Your task to perform on an android device: Show me popular videos on Youtube Image 0: 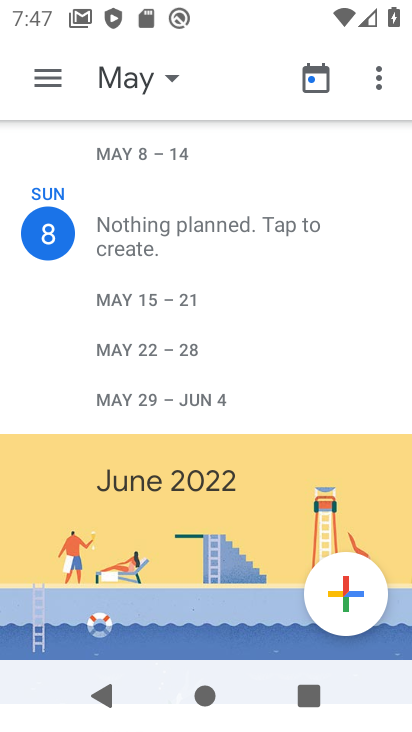
Step 0: press home button
Your task to perform on an android device: Show me popular videos on Youtube Image 1: 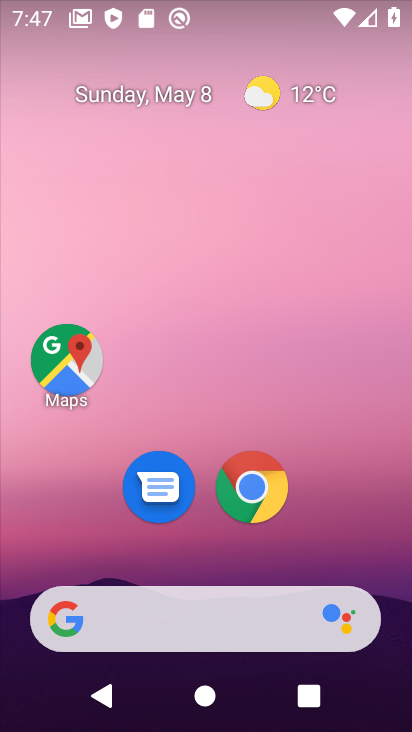
Step 1: drag from (318, 520) to (369, 115)
Your task to perform on an android device: Show me popular videos on Youtube Image 2: 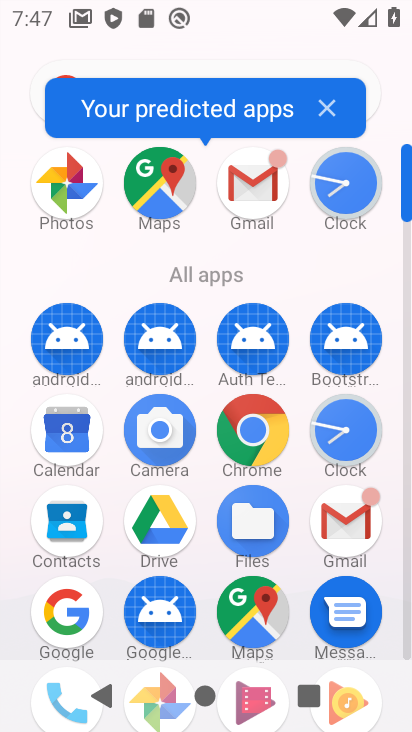
Step 2: drag from (254, 289) to (292, 42)
Your task to perform on an android device: Show me popular videos on Youtube Image 3: 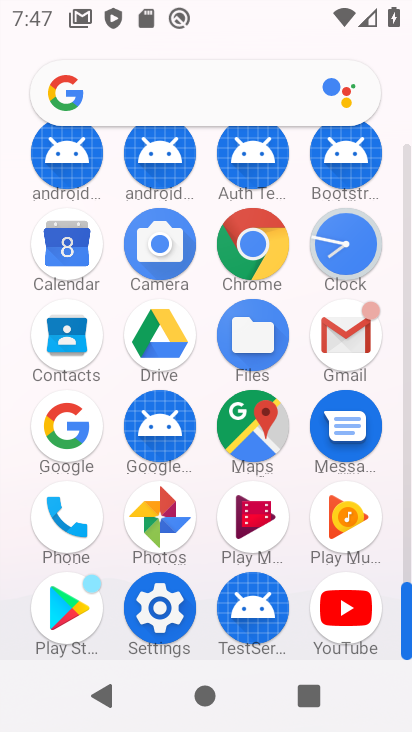
Step 3: click (351, 607)
Your task to perform on an android device: Show me popular videos on Youtube Image 4: 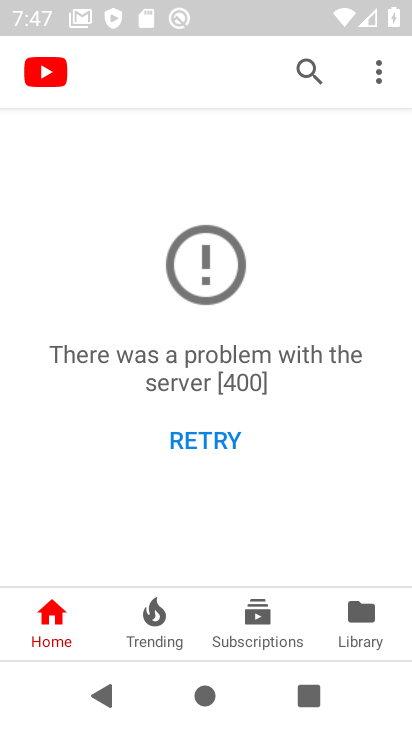
Step 4: click (298, 72)
Your task to perform on an android device: Show me popular videos on Youtube Image 5: 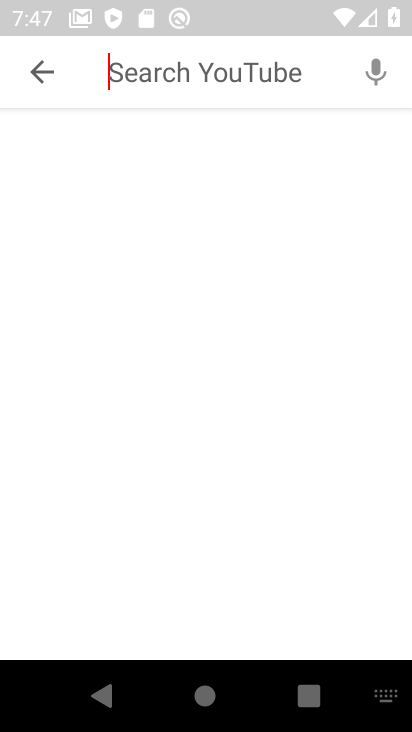
Step 5: click (272, 67)
Your task to perform on an android device: Show me popular videos on Youtube Image 6: 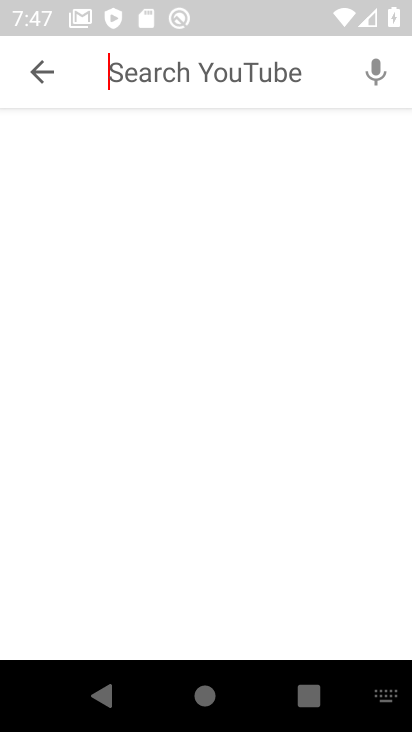
Step 6: type "popular videos"
Your task to perform on an android device: Show me popular videos on Youtube Image 7: 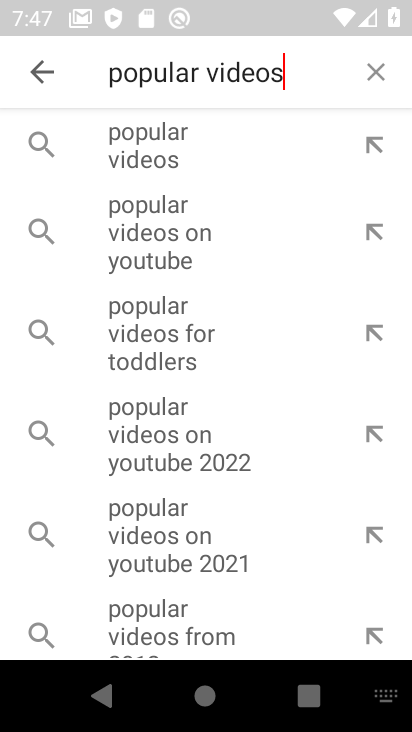
Step 7: click (158, 141)
Your task to perform on an android device: Show me popular videos on Youtube Image 8: 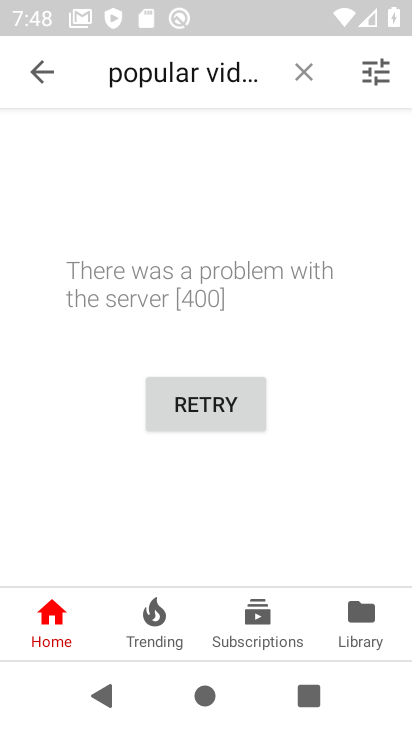
Step 8: task complete